Your task to perform on an android device: open app "Yahoo Mail" (install if not already installed) Image 0: 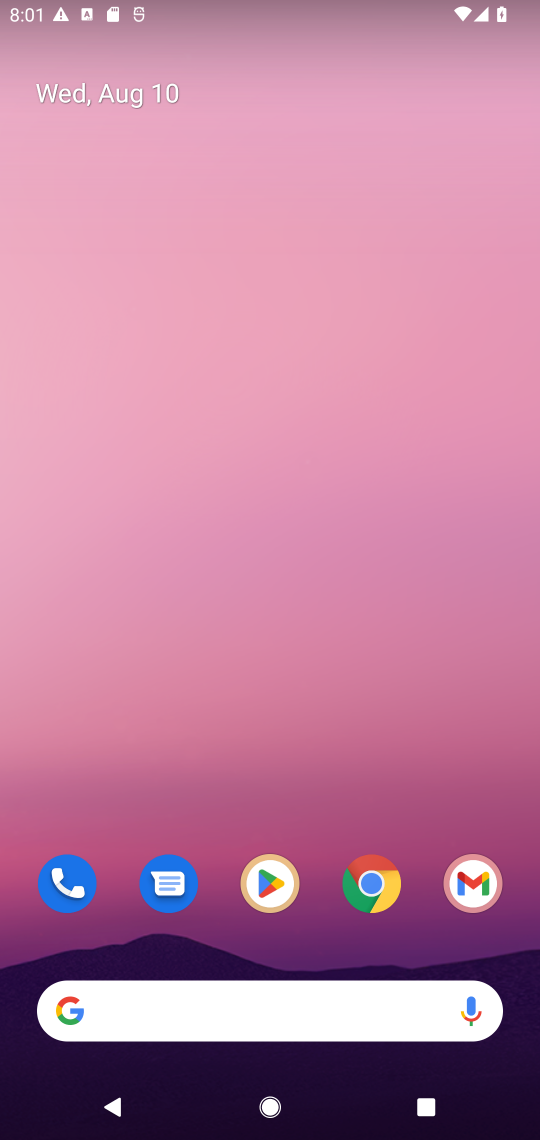
Step 0: click (274, 890)
Your task to perform on an android device: open app "Yahoo Mail" (install if not already installed) Image 1: 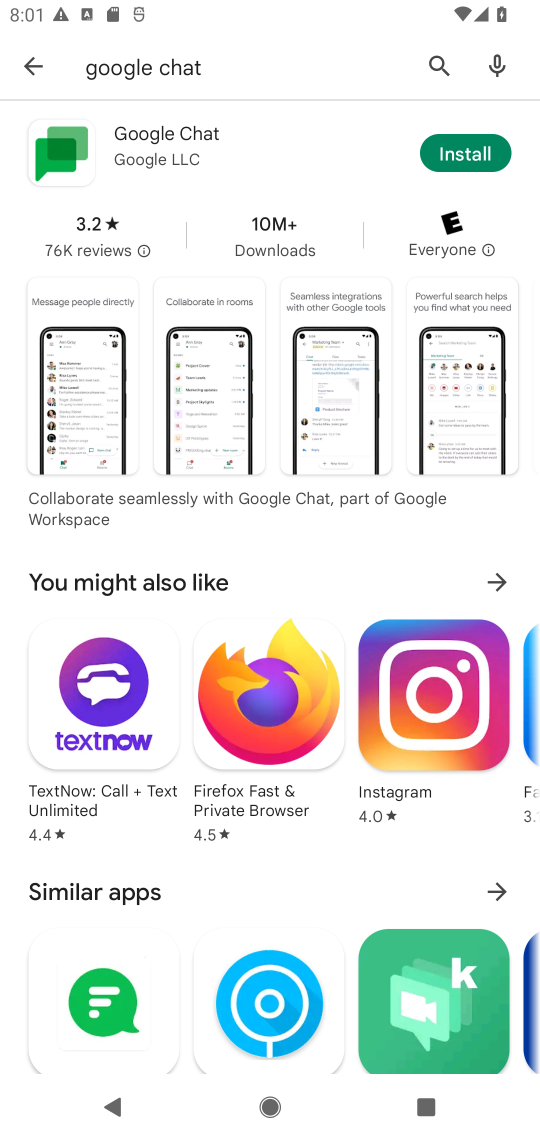
Step 1: click (434, 61)
Your task to perform on an android device: open app "Yahoo Mail" (install if not already installed) Image 2: 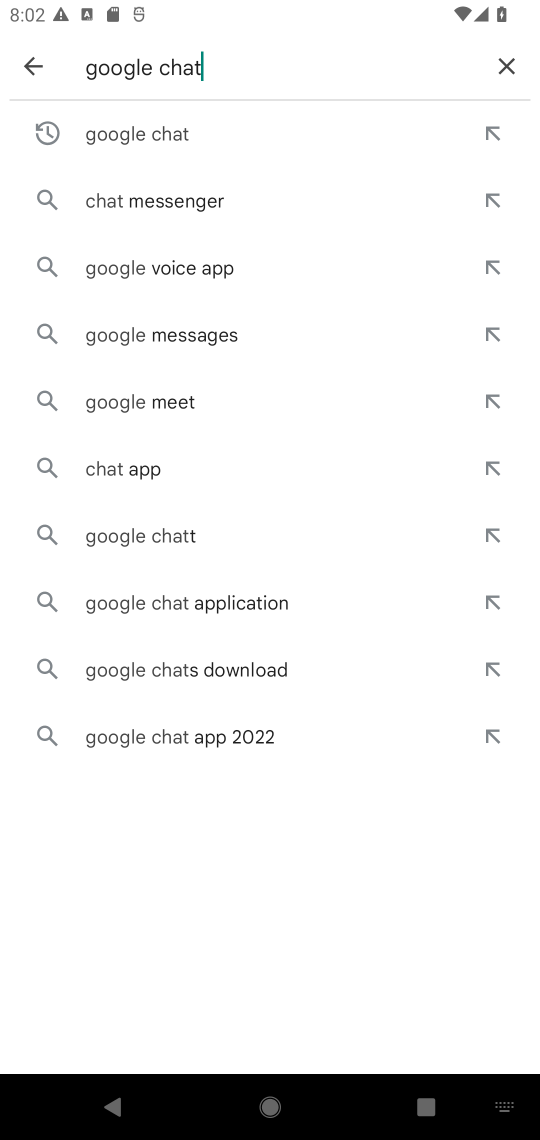
Step 2: click (505, 63)
Your task to perform on an android device: open app "Yahoo Mail" (install if not already installed) Image 3: 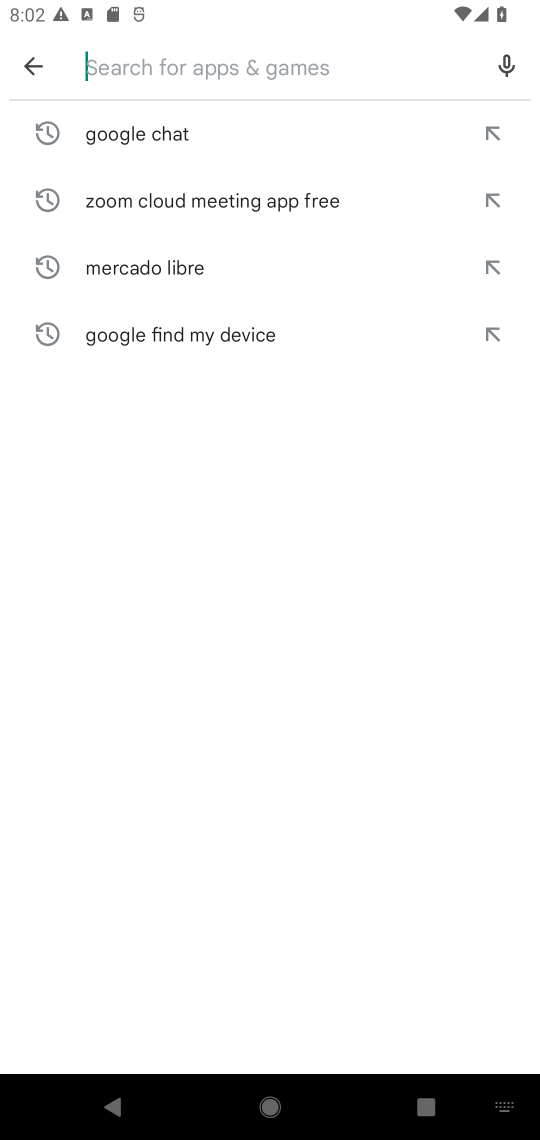
Step 3: type "Yahoo Mail"
Your task to perform on an android device: open app "Yahoo Mail" (install if not already installed) Image 4: 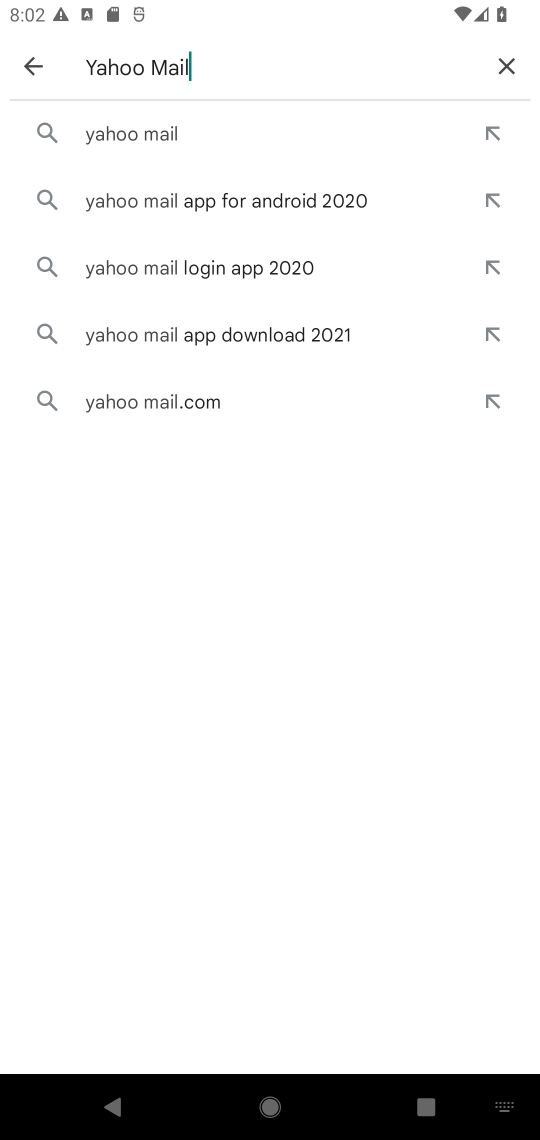
Step 4: click (141, 125)
Your task to perform on an android device: open app "Yahoo Mail" (install if not already installed) Image 5: 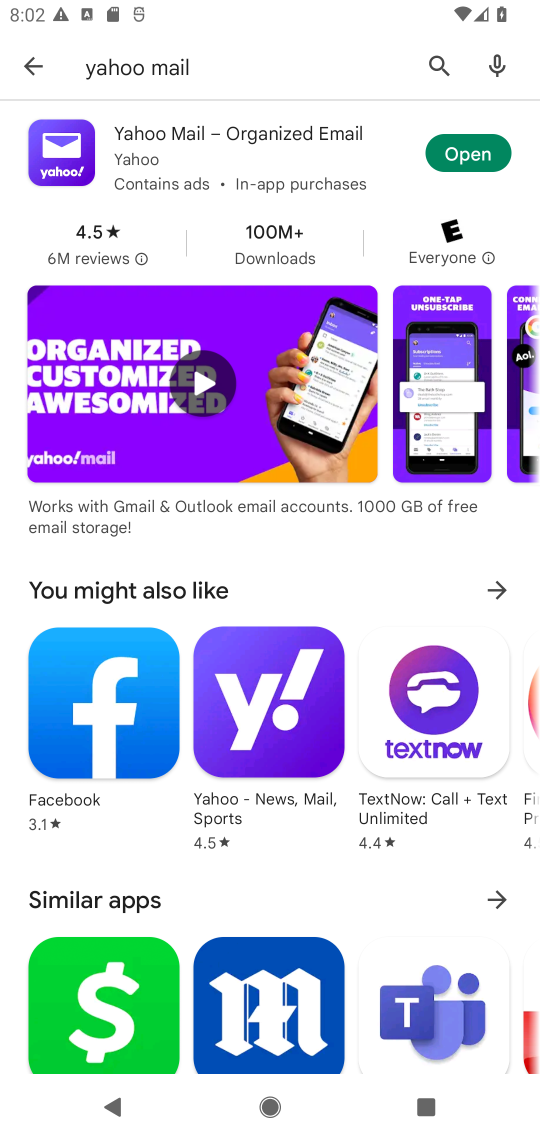
Step 5: click (456, 143)
Your task to perform on an android device: open app "Yahoo Mail" (install if not already installed) Image 6: 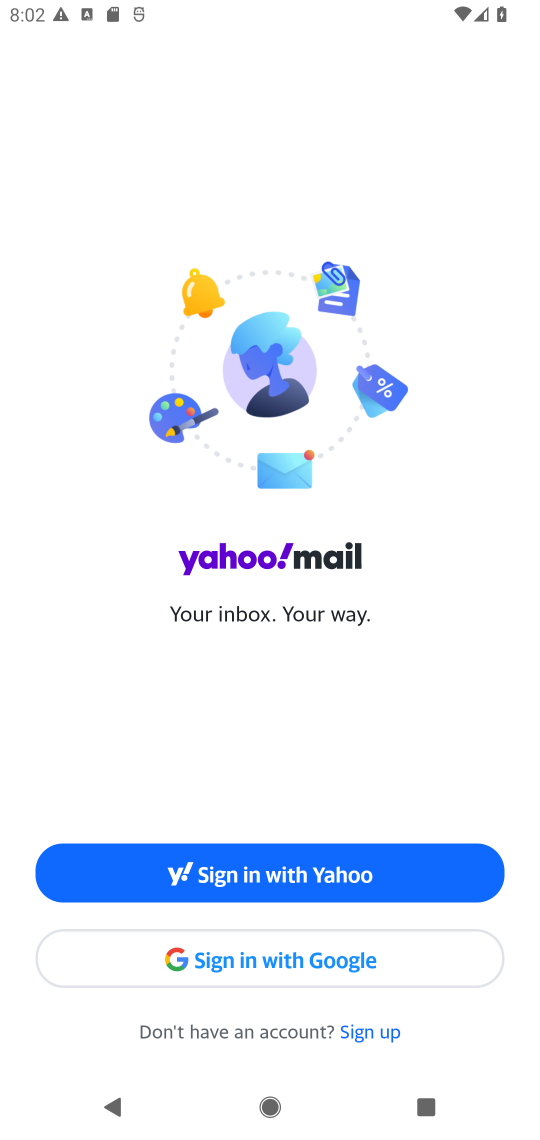
Step 6: task complete